Your task to perform on an android device: Open my contact list Image 0: 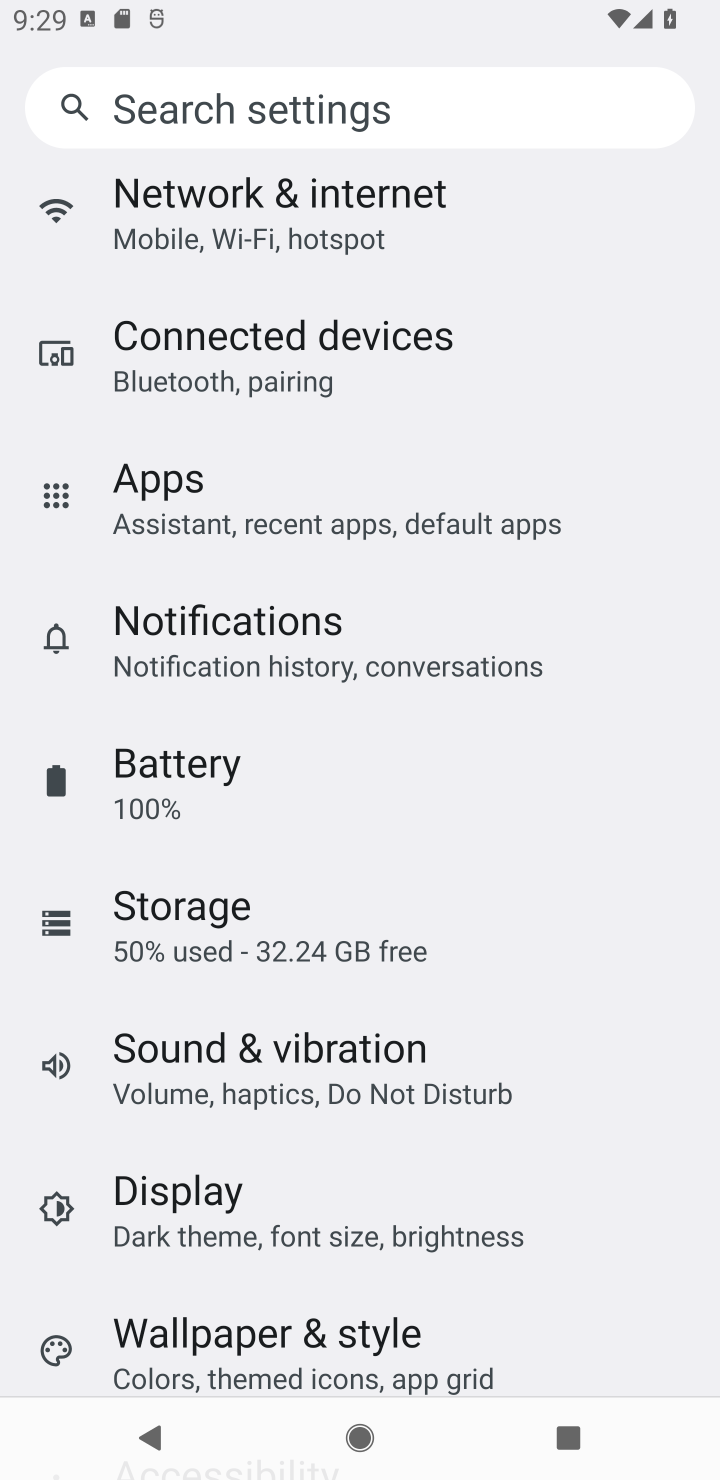
Step 0: press home button
Your task to perform on an android device: Open my contact list Image 1: 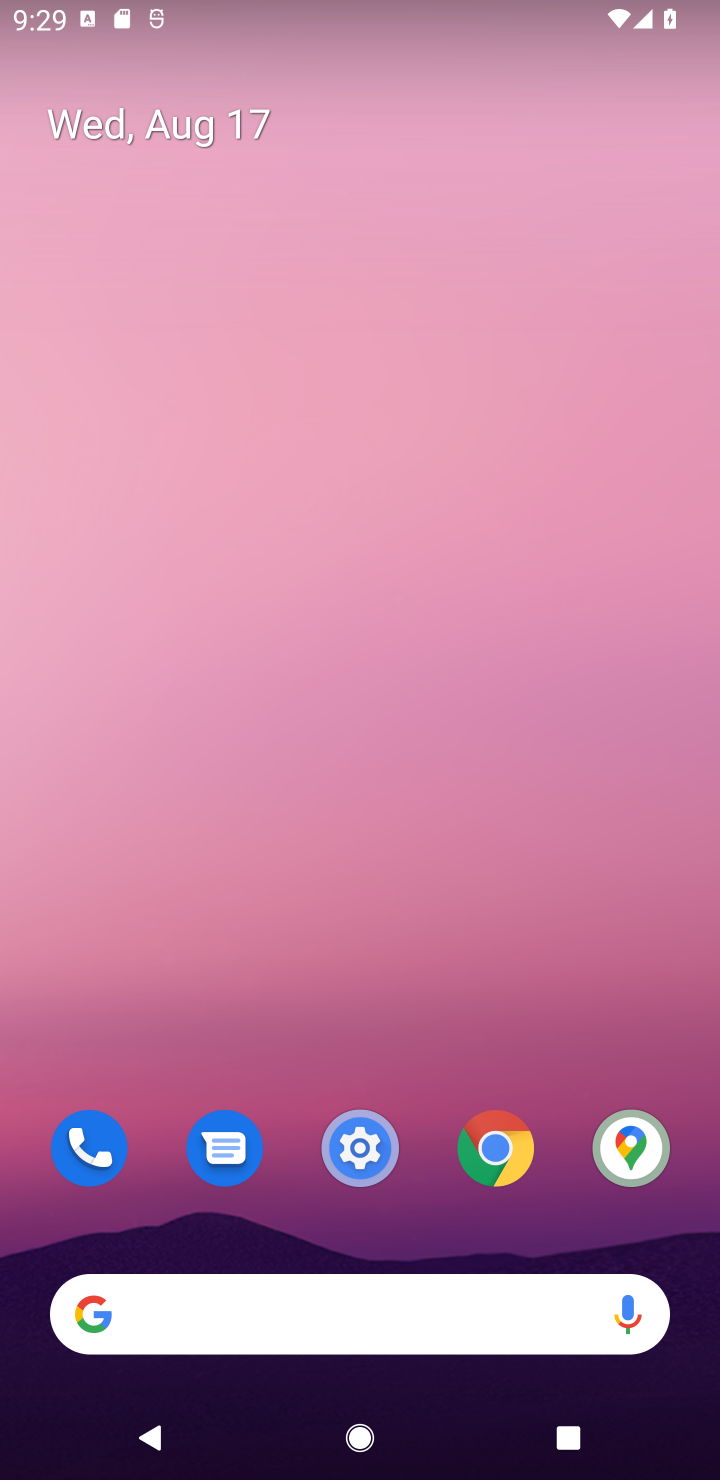
Step 1: drag from (580, 1212) to (481, 300)
Your task to perform on an android device: Open my contact list Image 2: 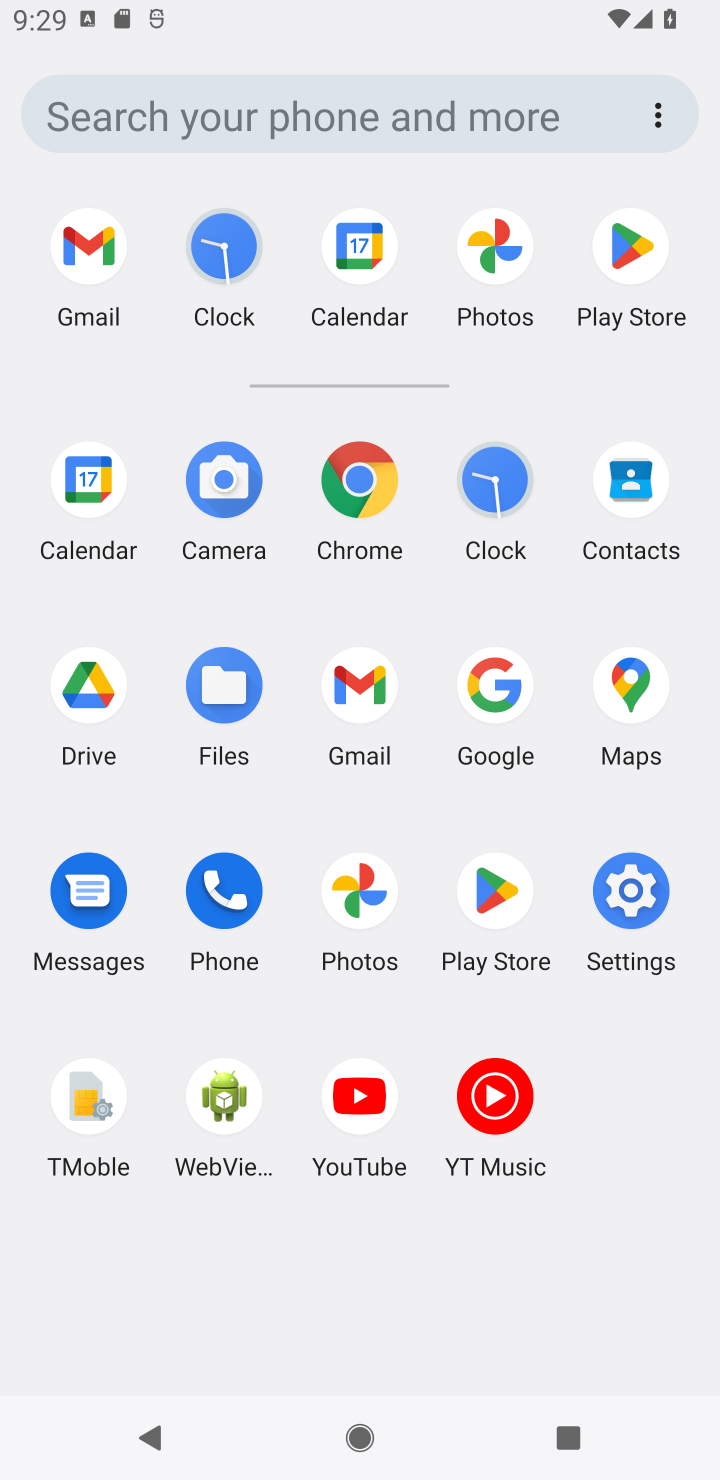
Step 2: click (633, 478)
Your task to perform on an android device: Open my contact list Image 3: 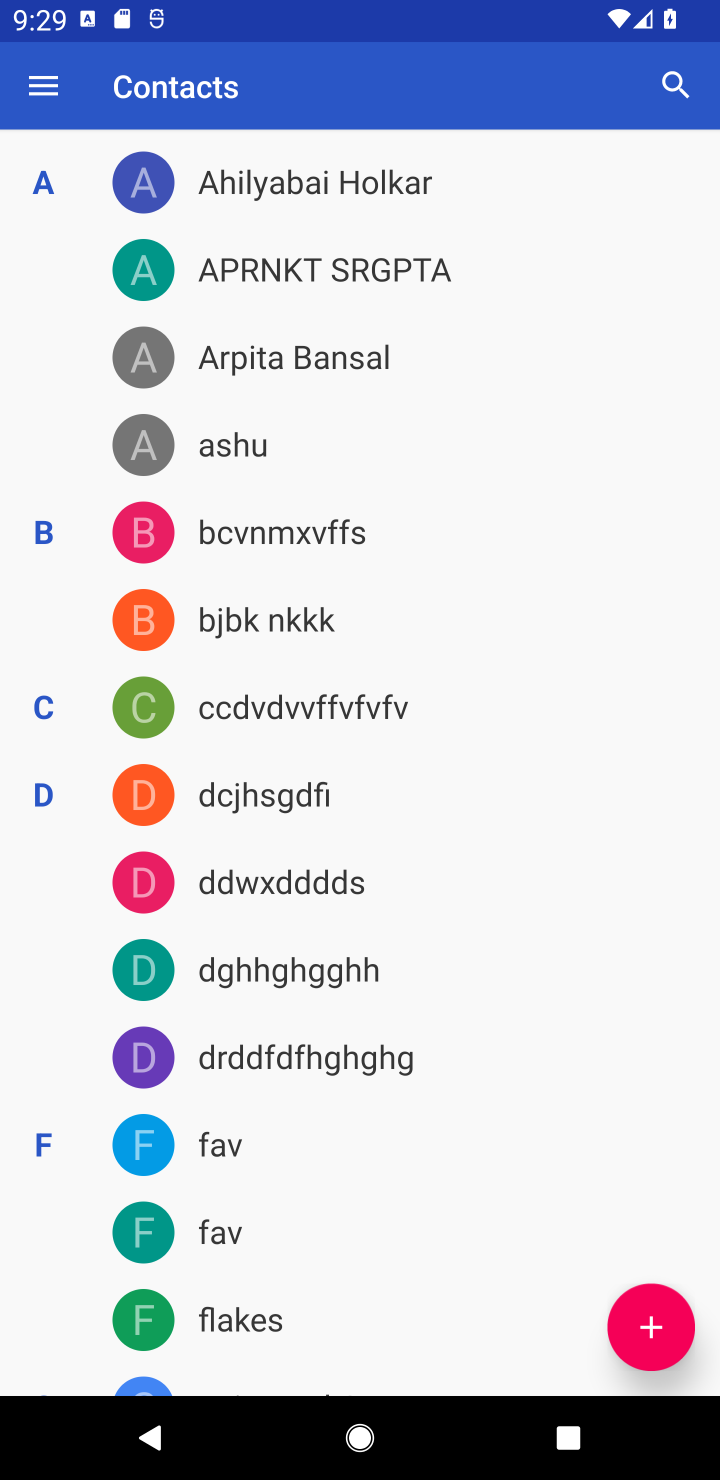
Step 3: task complete